Your task to perform on an android device: delete a single message in the gmail app Image 0: 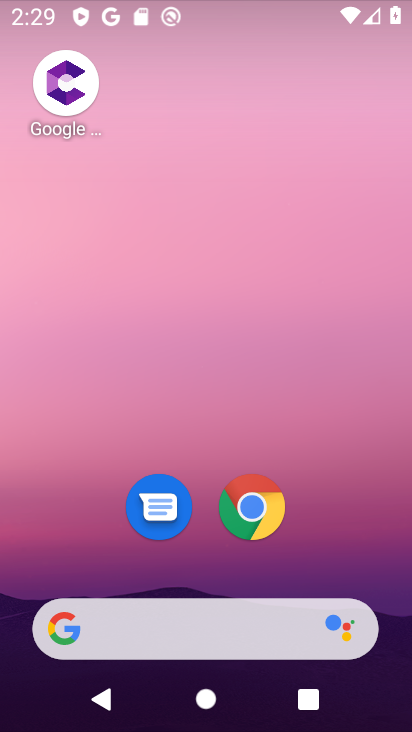
Step 0: drag from (387, 715) to (286, 95)
Your task to perform on an android device: delete a single message in the gmail app Image 1: 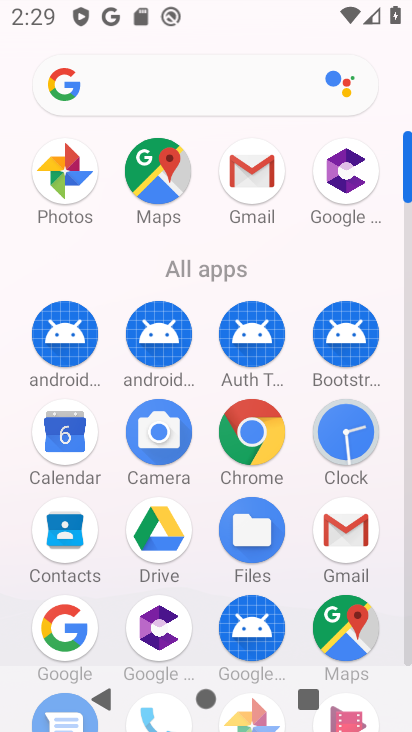
Step 1: click (262, 176)
Your task to perform on an android device: delete a single message in the gmail app Image 2: 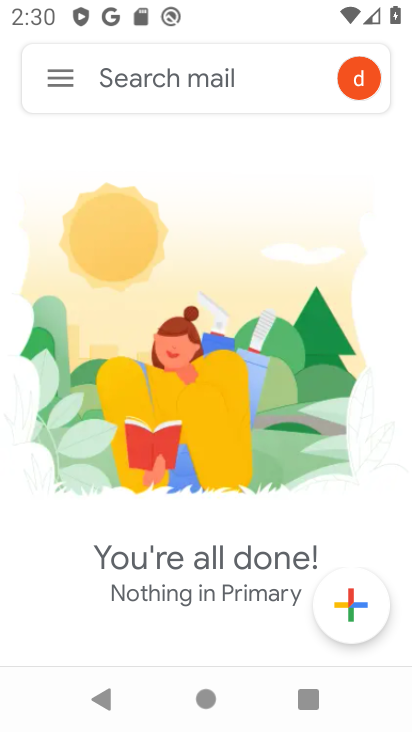
Step 2: click (64, 84)
Your task to perform on an android device: delete a single message in the gmail app Image 3: 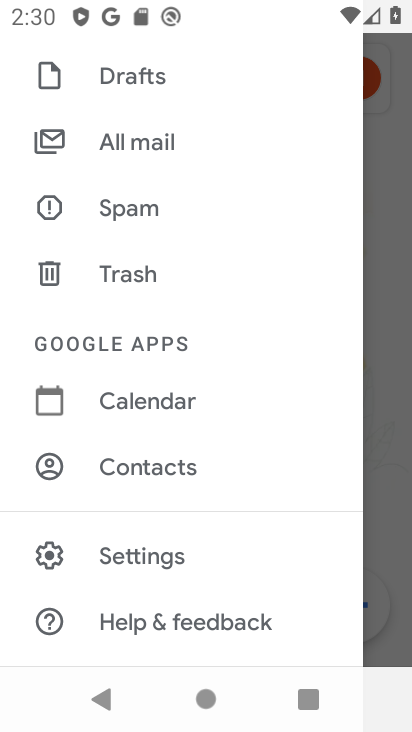
Step 3: task complete